Your task to perform on an android device: change the clock display to digital Image 0: 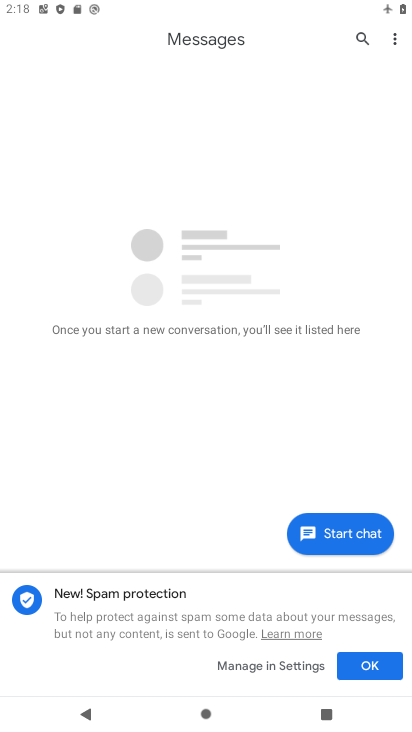
Step 0: press home button
Your task to perform on an android device: change the clock display to digital Image 1: 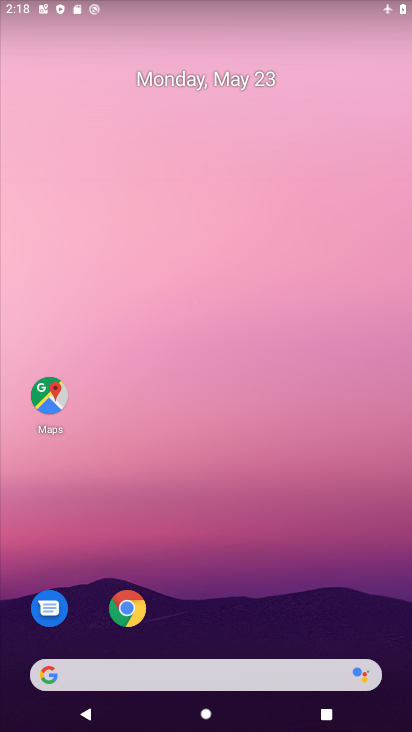
Step 1: drag from (189, 650) to (202, 15)
Your task to perform on an android device: change the clock display to digital Image 2: 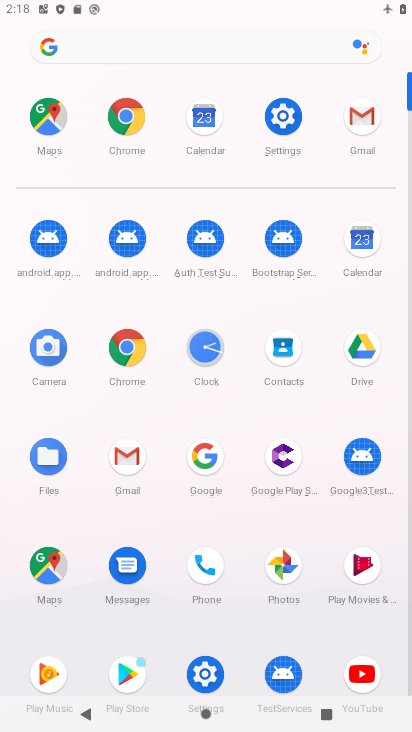
Step 2: click (204, 358)
Your task to perform on an android device: change the clock display to digital Image 3: 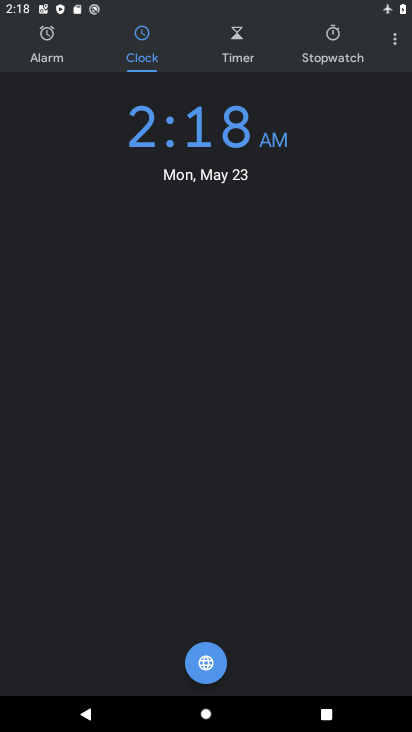
Step 3: click (394, 37)
Your task to perform on an android device: change the clock display to digital Image 4: 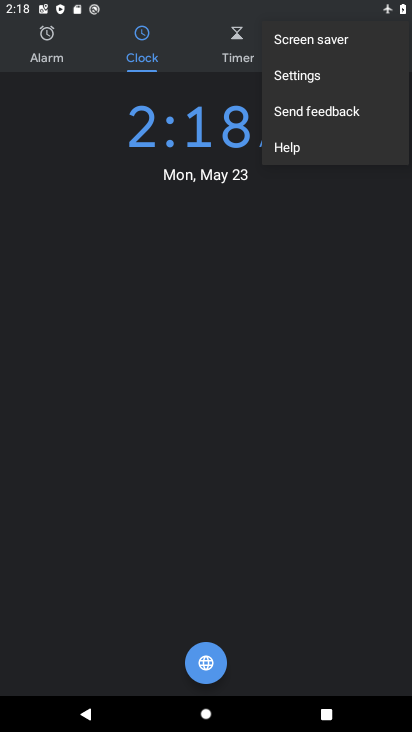
Step 4: click (296, 71)
Your task to perform on an android device: change the clock display to digital Image 5: 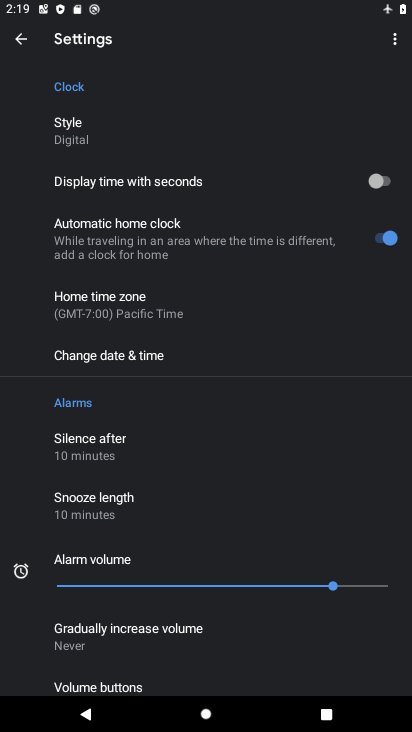
Step 5: task complete